Your task to perform on an android device: refresh tabs in the chrome app Image 0: 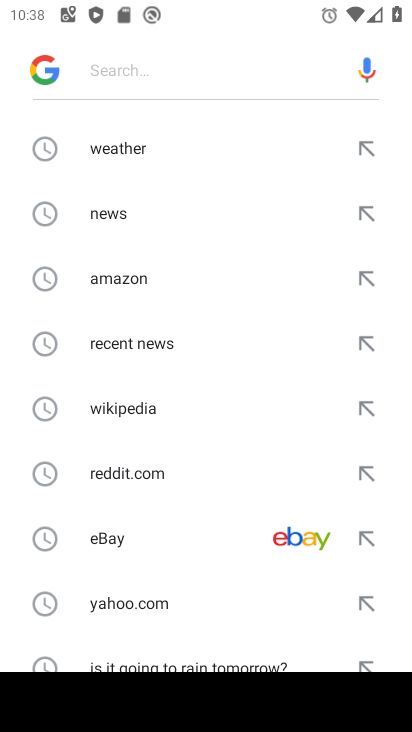
Step 0: press home button
Your task to perform on an android device: refresh tabs in the chrome app Image 1: 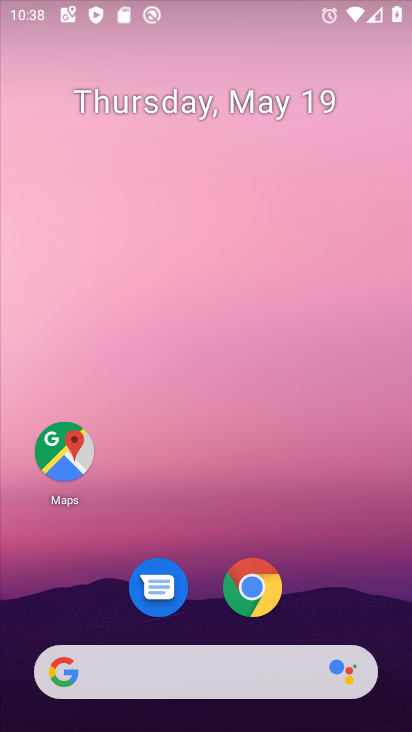
Step 1: drag from (316, 602) to (317, 121)
Your task to perform on an android device: refresh tabs in the chrome app Image 2: 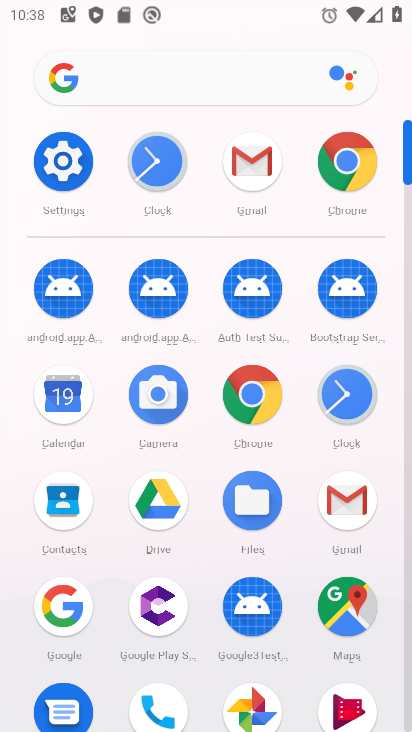
Step 2: click (255, 395)
Your task to perform on an android device: refresh tabs in the chrome app Image 3: 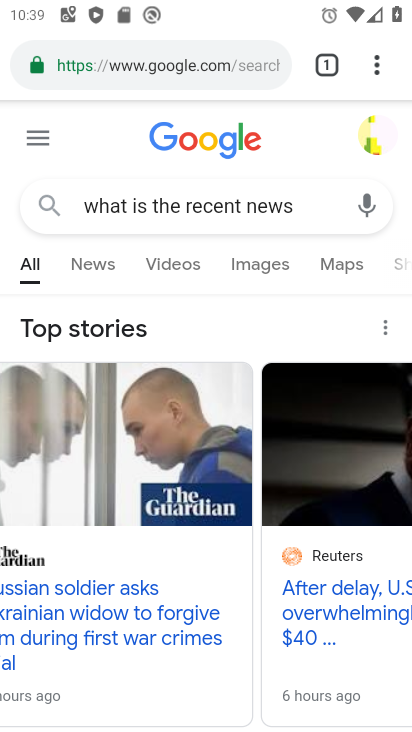
Step 3: task complete